Your task to perform on an android device: find photos in the google photos app Image 0: 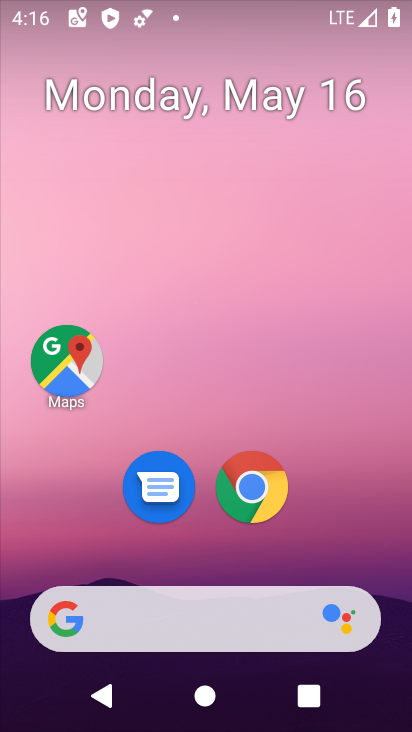
Step 0: drag from (398, 620) to (260, 147)
Your task to perform on an android device: find photos in the google photos app Image 1: 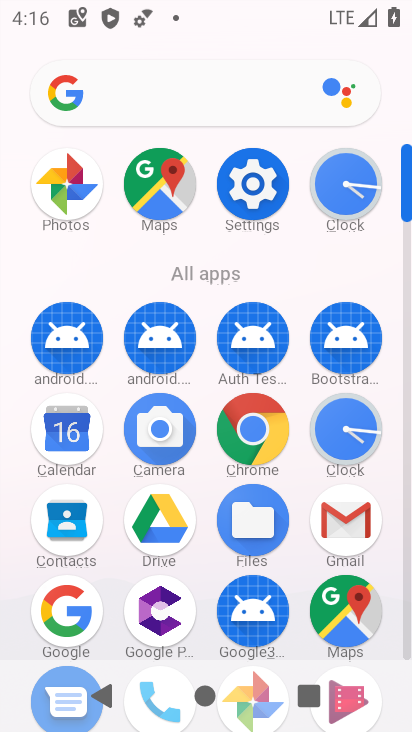
Step 1: click (408, 641)
Your task to perform on an android device: find photos in the google photos app Image 2: 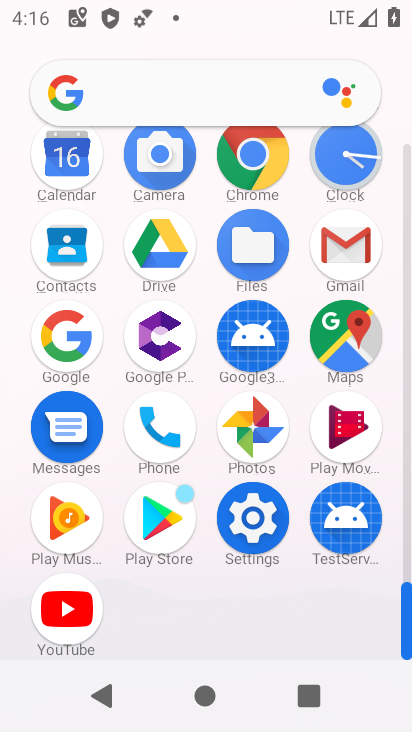
Step 2: click (254, 425)
Your task to perform on an android device: find photos in the google photos app Image 3: 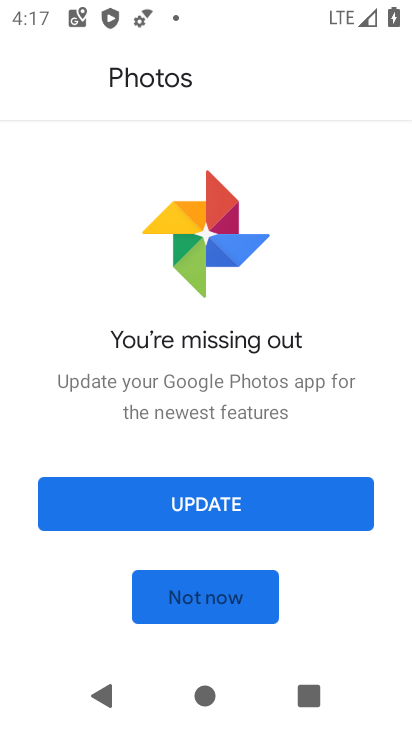
Step 3: click (188, 509)
Your task to perform on an android device: find photos in the google photos app Image 4: 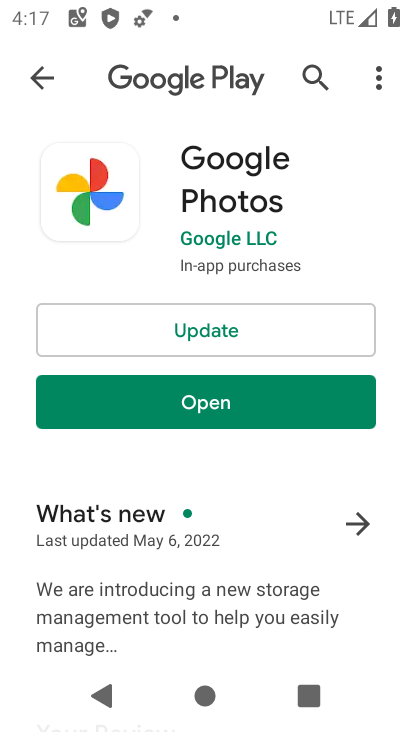
Step 4: click (201, 322)
Your task to perform on an android device: find photos in the google photos app Image 5: 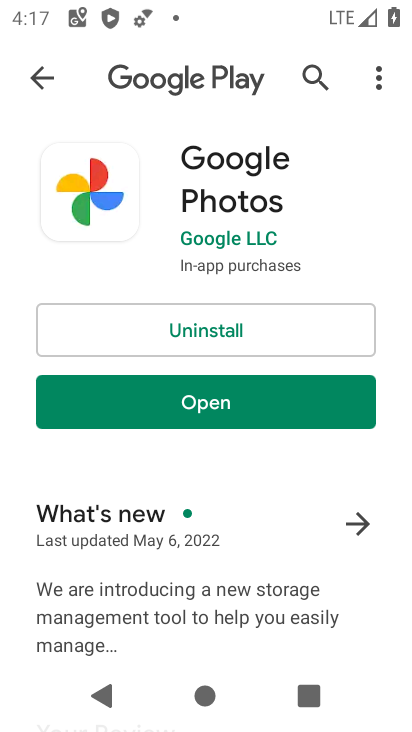
Step 5: click (215, 396)
Your task to perform on an android device: find photos in the google photos app Image 6: 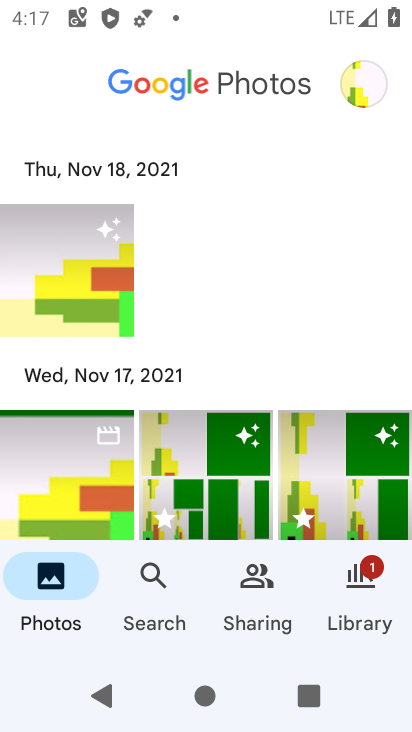
Step 6: task complete